Your task to perform on an android device: Go to Amazon Image 0: 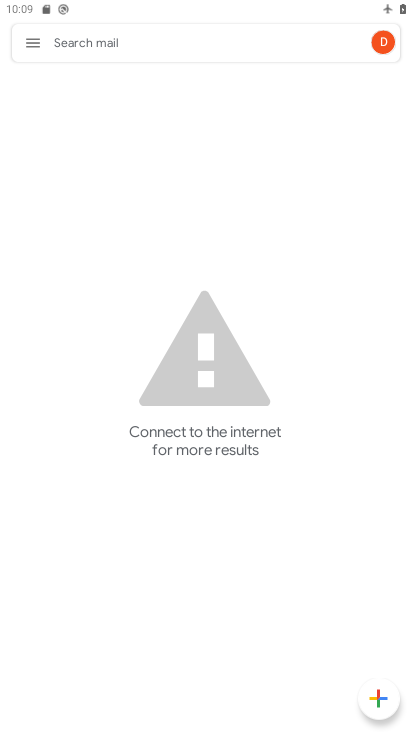
Step 0: press home button
Your task to perform on an android device: Go to Amazon Image 1: 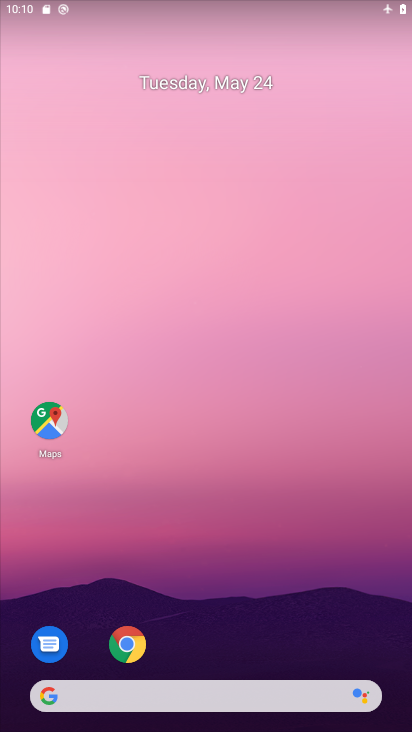
Step 1: click (130, 646)
Your task to perform on an android device: Go to Amazon Image 2: 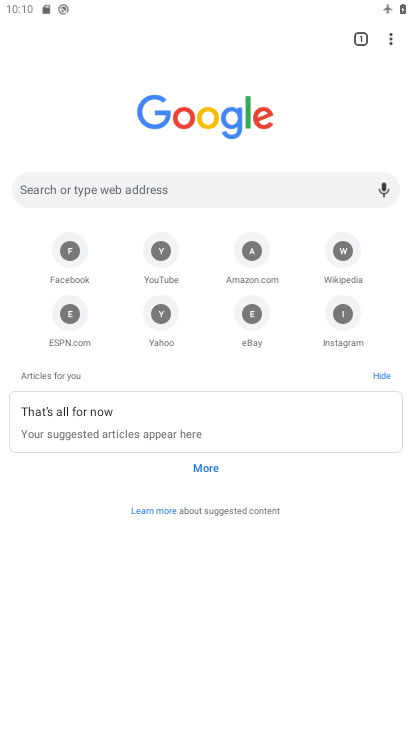
Step 2: drag from (270, 281) to (153, 193)
Your task to perform on an android device: Go to Amazon Image 3: 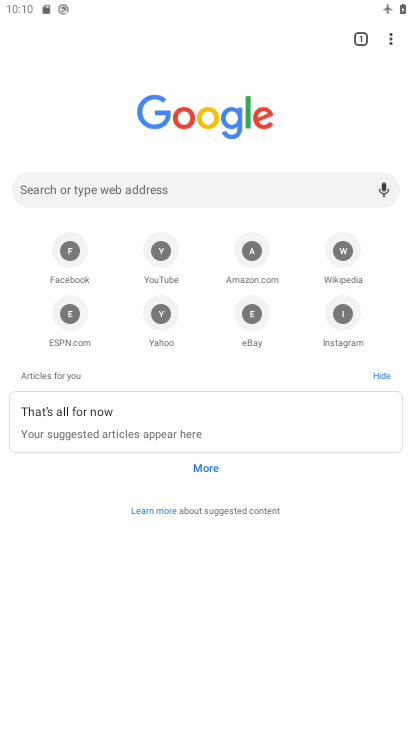
Step 3: click (250, 252)
Your task to perform on an android device: Go to Amazon Image 4: 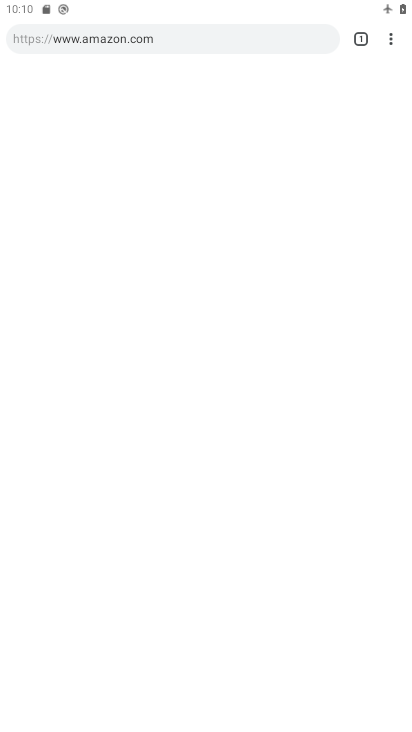
Step 4: click (412, 360)
Your task to perform on an android device: Go to Amazon Image 5: 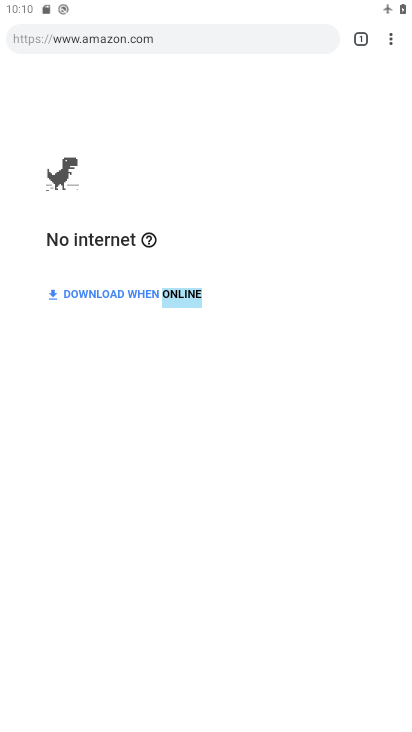
Step 5: task complete